Your task to perform on an android device: Open privacy settings Image 0: 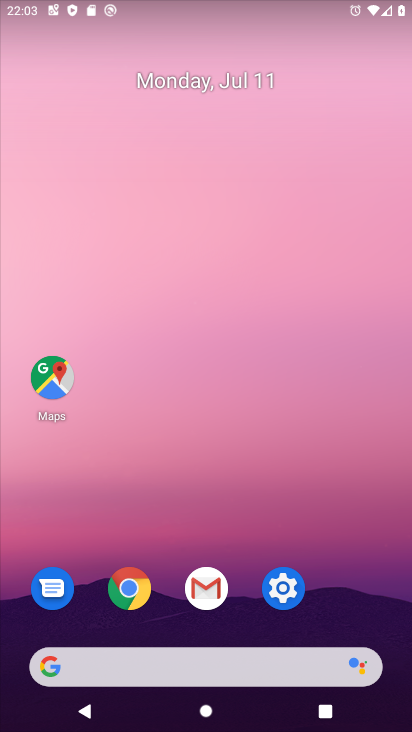
Step 0: click (272, 589)
Your task to perform on an android device: Open privacy settings Image 1: 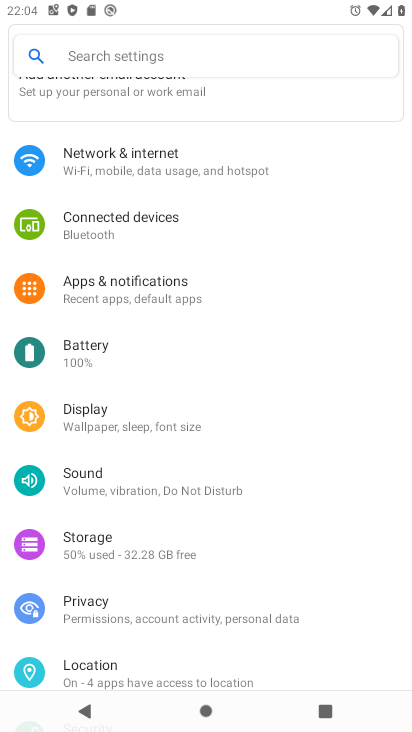
Step 1: click (95, 615)
Your task to perform on an android device: Open privacy settings Image 2: 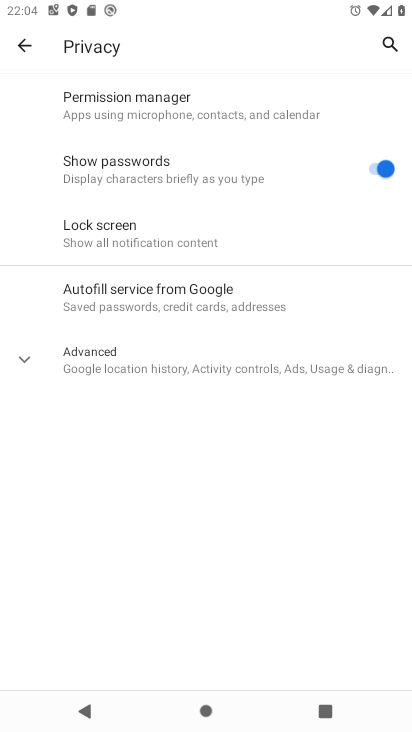
Step 2: task complete